Your task to perform on an android device: Open notification settings Image 0: 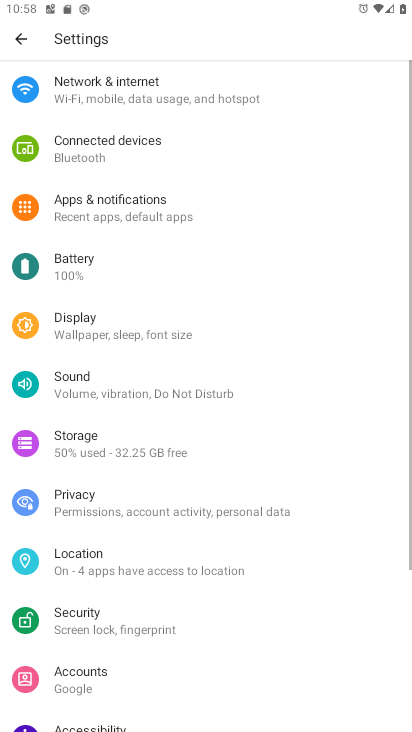
Step 0: press home button
Your task to perform on an android device: Open notification settings Image 1: 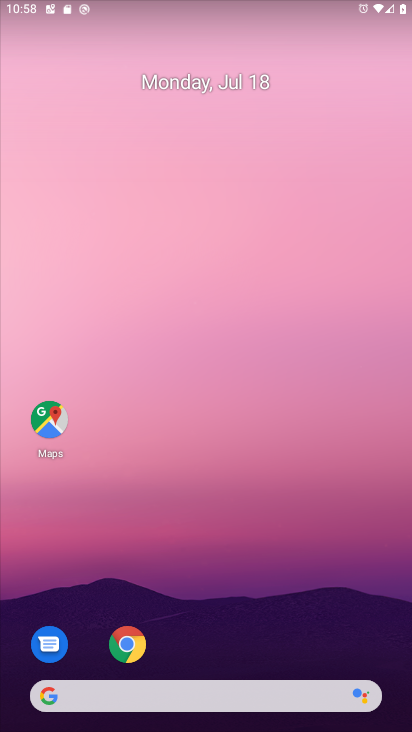
Step 1: drag from (215, 652) to (256, 142)
Your task to perform on an android device: Open notification settings Image 2: 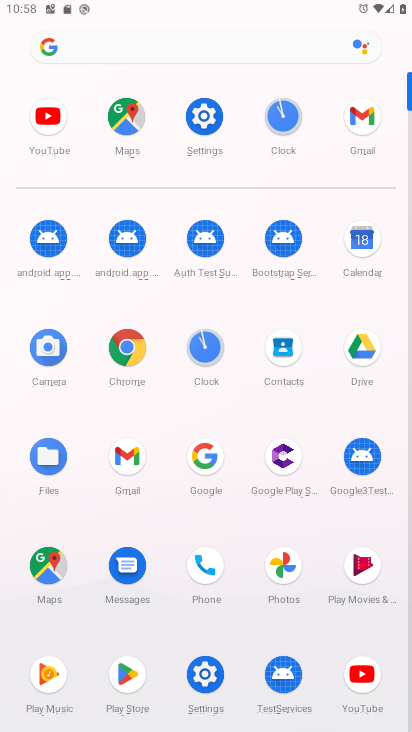
Step 2: click (221, 119)
Your task to perform on an android device: Open notification settings Image 3: 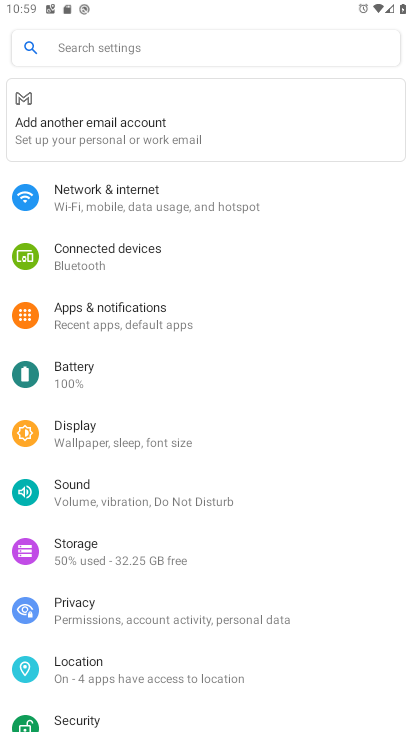
Step 3: click (180, 314)
Your task to perform on an android device: Open notification settings Image 4: 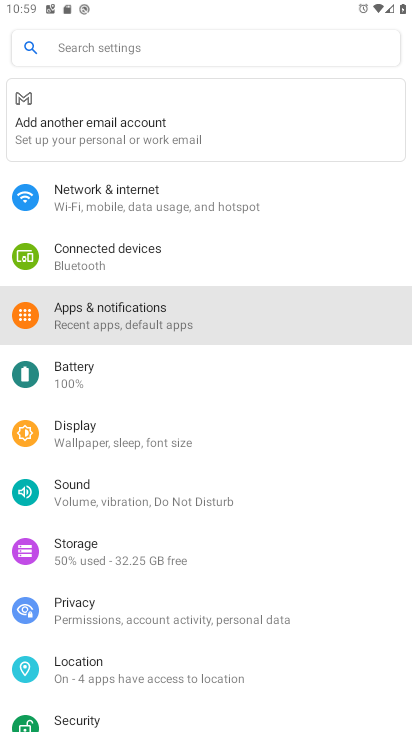
Step 4: task complete